Your task to perform on an android device: turn on the 12-hour format for clock Image 0: 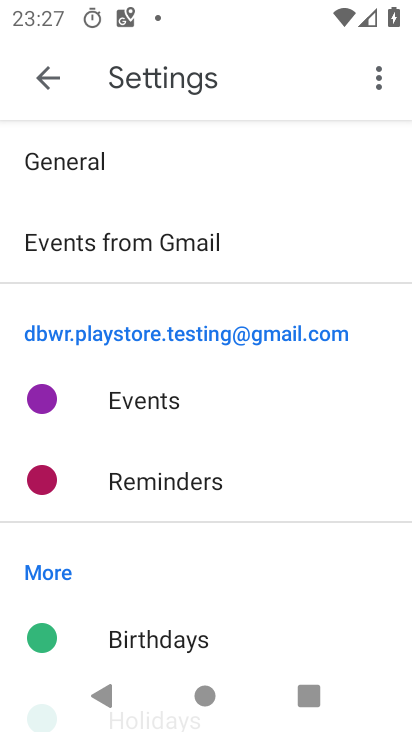
Step 0: press home button
Your task to perform on an android device: turn on the 12-hour format for clock Image 1: 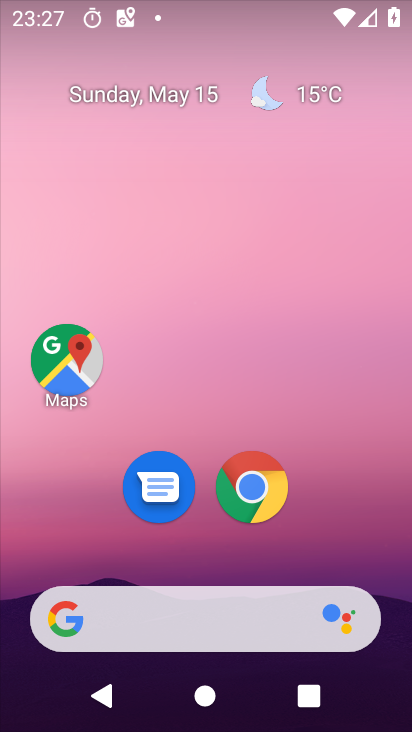
Step 1: drag from (357, 463) to (320, 241)
Your task to perform on an android device: turn on the 12-hour format for clock Image 2: 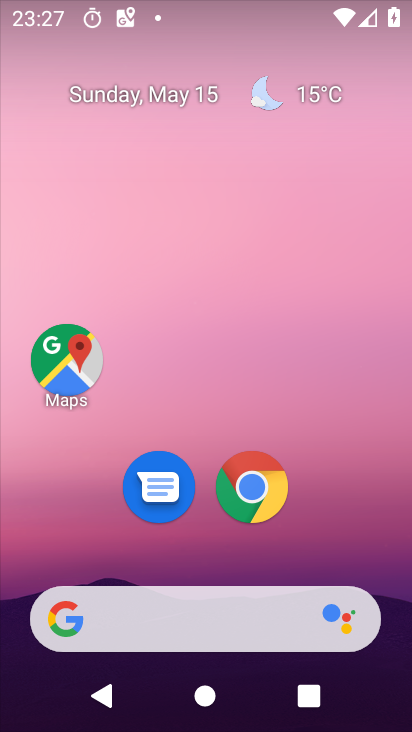
Step 2: drag from (397, 449) to (404, 327)
Your task to perform on an android device: turn on the 12-hour format for clock Image 3: 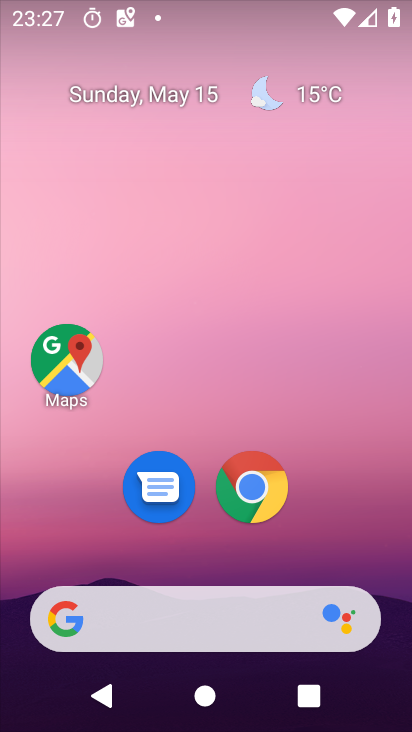
Step 3: drag from (397, 522) to (384, 273)
Your task to perform on an android device: turn on the 12-hour format for clock Image 4: 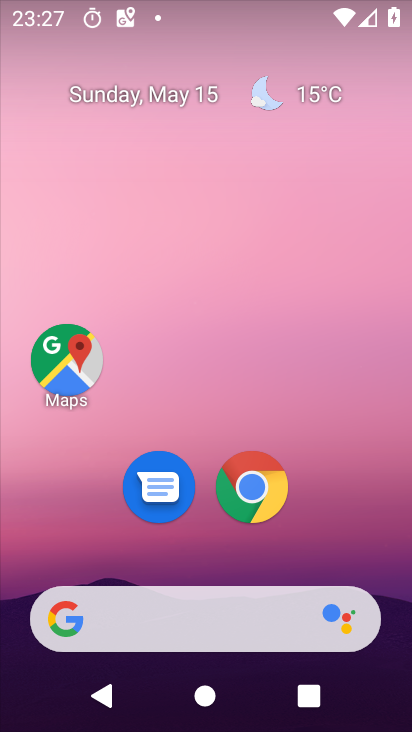
Step 4: drag from (369, 586) to (326, 178)
Your task to perform on an android device: turn on the 12-hour format for clock Image 5: 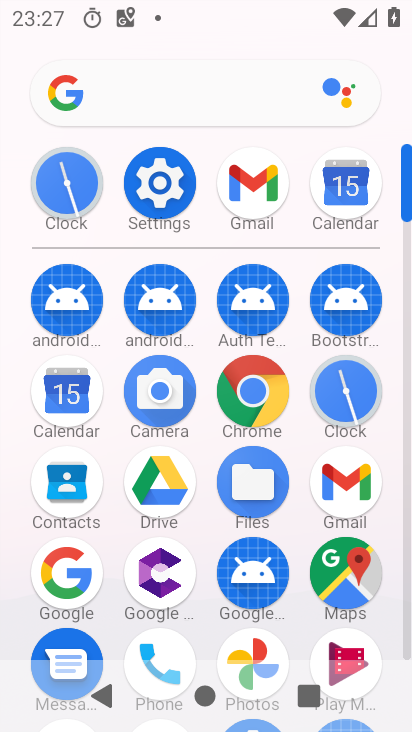
Step 5: click (335, 400)
Your task to perform on an android device: turn on the 12-hour format for clock Image 6: 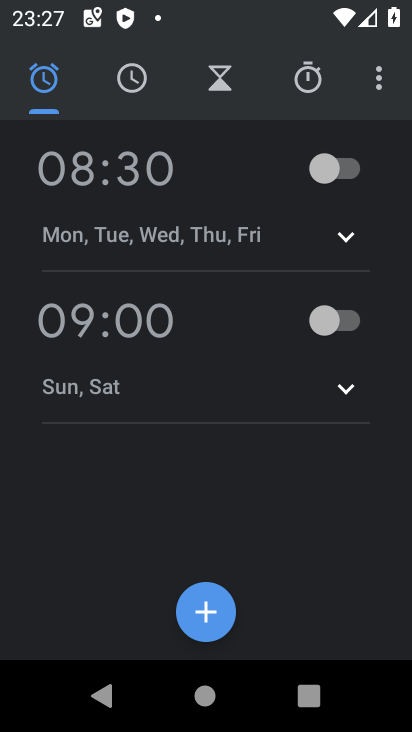
Step 6: click (375, 74)
Your task to perform on an android device: turn on the 12-hour format for clock Image 7: 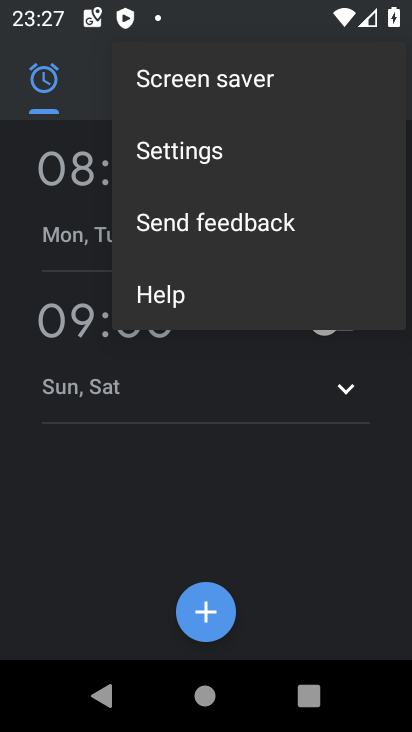
Step 7: click (156, 147)
Your task to perform on an android device: turn on the 12-hour format for clock Image 8: 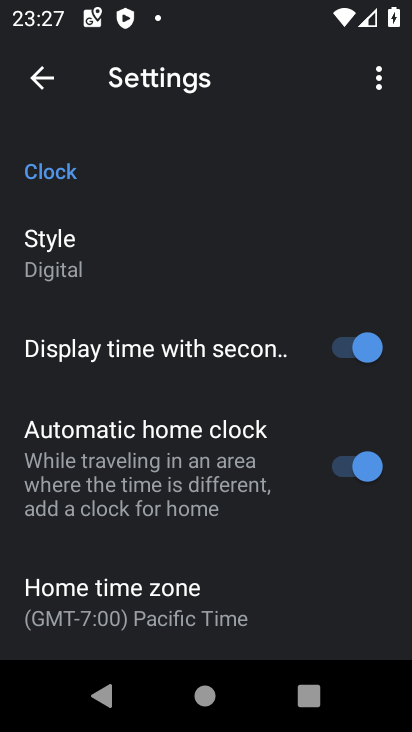
Step 8: click (218, 235)
Your task to perform on an android device: turn on the 12-hour format for clock Image 9: 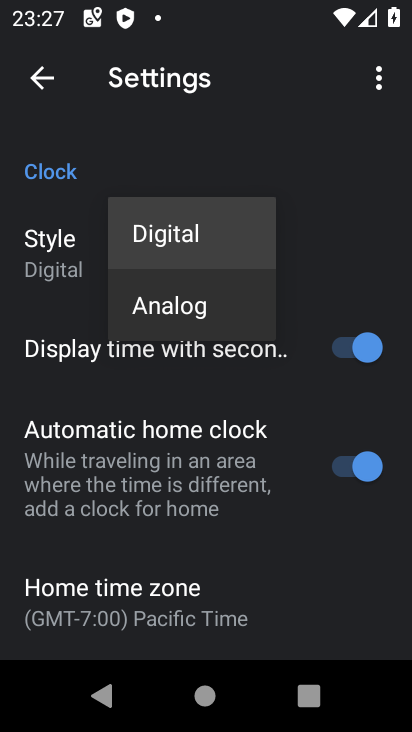
Step 9: drag from (235, 604) to (261, 439)
Your task to perform on an android device: turn on the 12-hour format for clock Image 10: 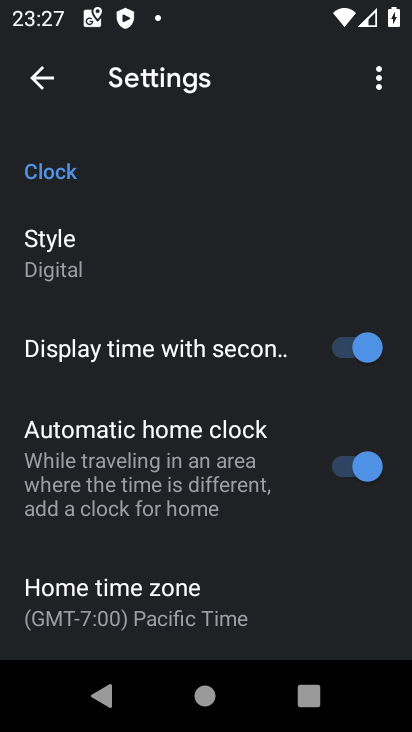
Step 10: drag from (206, 608) to (242, 341)
Your task to perform on an android device: turn on the 12-hour format for clock Image 11: 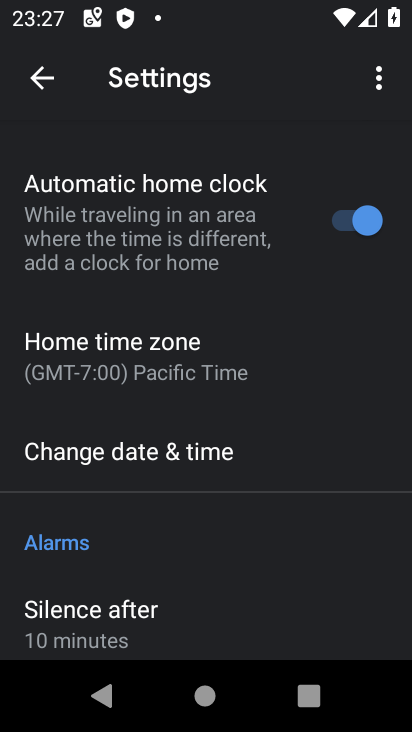
Step 11: drag from (179, 595) to (196, 383)
Your task to perform on an android device: turn on the 12-hour format for clock Image 12: 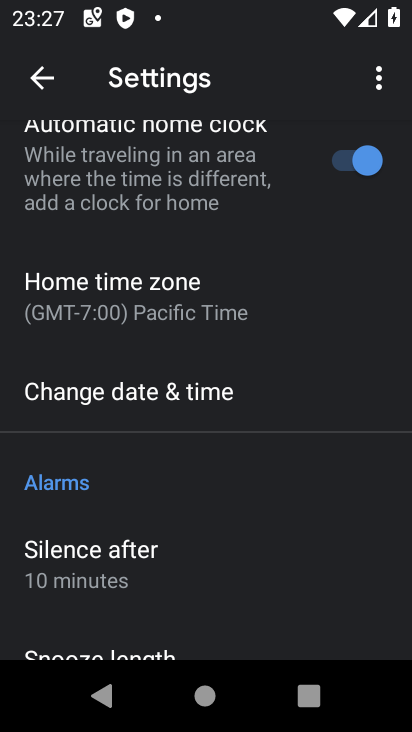
Step 12: click (114, 391)
Your task to perform on an android device: turn on the 12-hour format for clock Image 13: 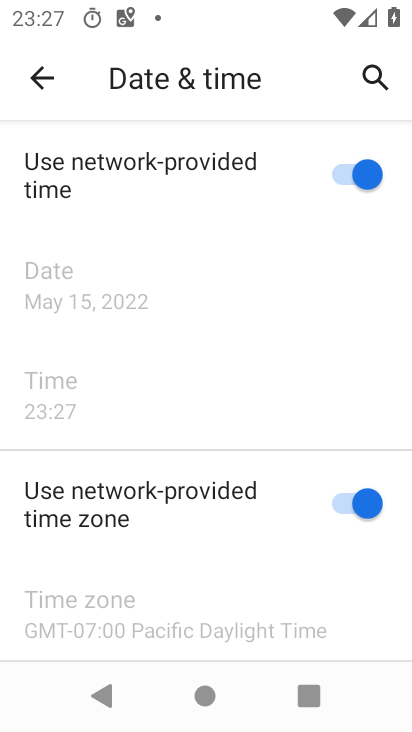
Step 13: click (245, 331)
Your task to perform on an android device: turn on the 12-hour format for clock Image 14: 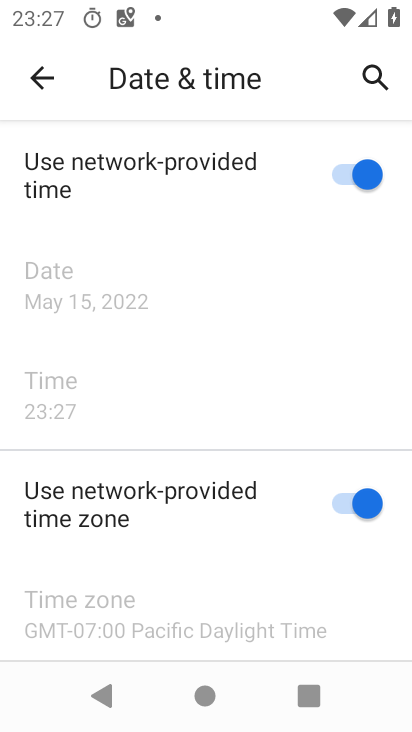
Step 14: drag from (252, 588) to (284, 344)
Your task to perform on an android device: turn on the 12-hour format for clock Image 15: 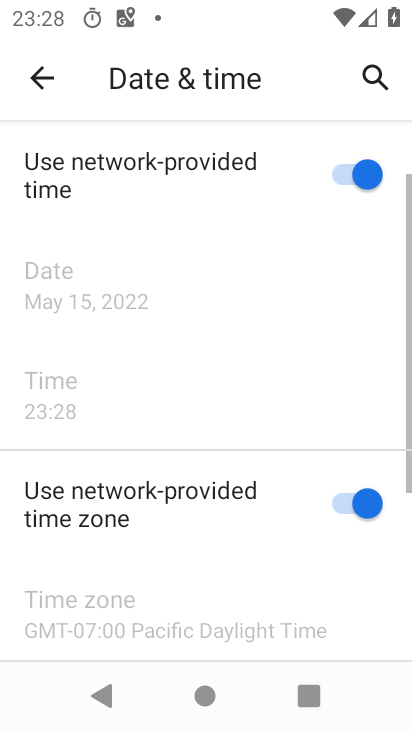
Step 15: drag from (226, 610) to (226, 315)
Your task to perform on an android device: turn on the 12-hour format for clock Image 16: 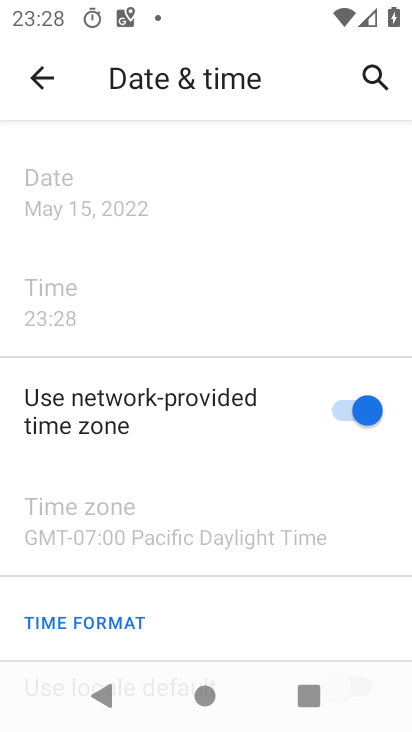
Step 16: drag from (217, 600) to (229, 333)
Your task to perform on an android device: turn on the 12-hour format for clock Image 17: 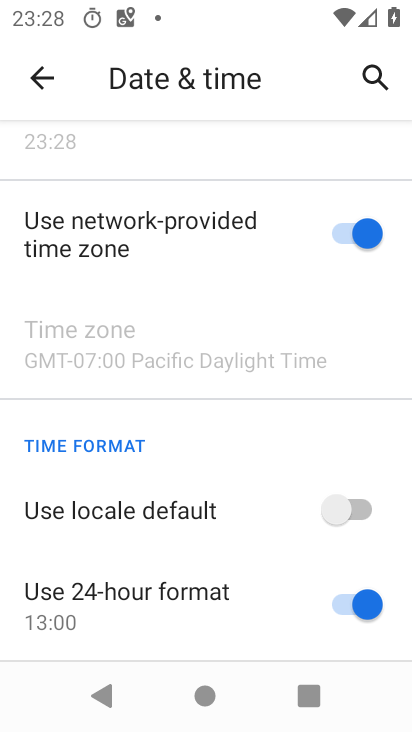
Step 17: click (370, 503)
Your task to perform on an android device: turn on the 12-hour format for clock Image 18: 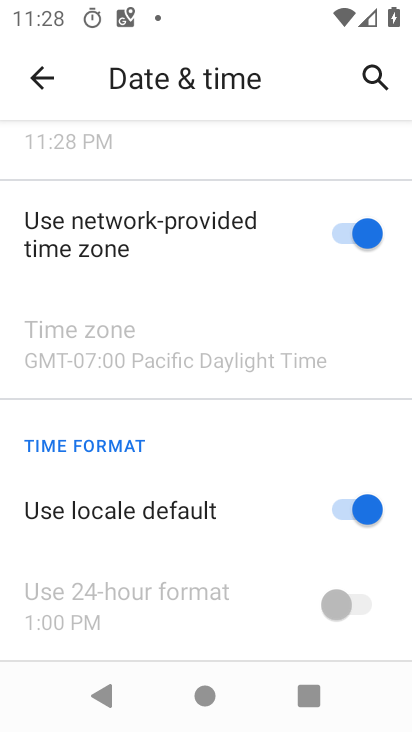
Step 18: task complete